Your task to perform on an android device: turn off sleep mode Image 0: 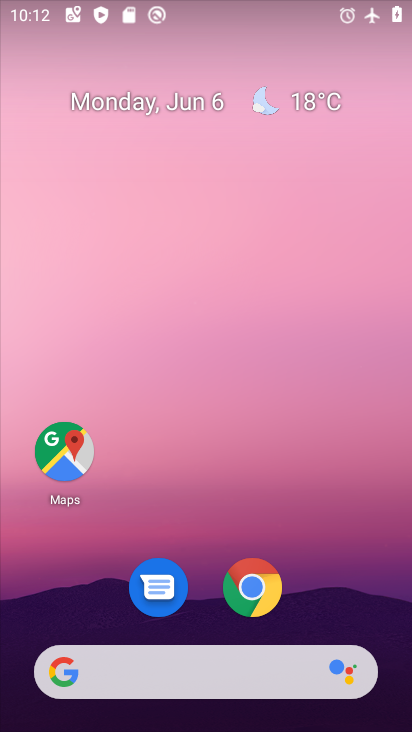
Step 0: drag from (333, 385) to (305, 67)
Your task to perform on an android device: turn off sleep mode Image 1: 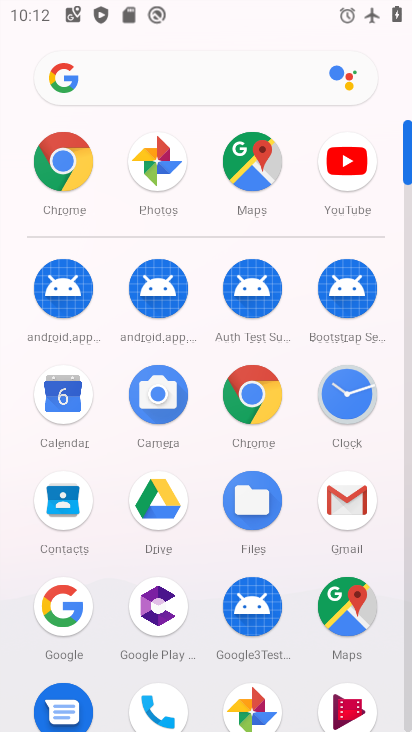
Step 1: drag from (292, 573) to (334, 163)
Your task to perform on an android device: turn off sleep mode Image 2: 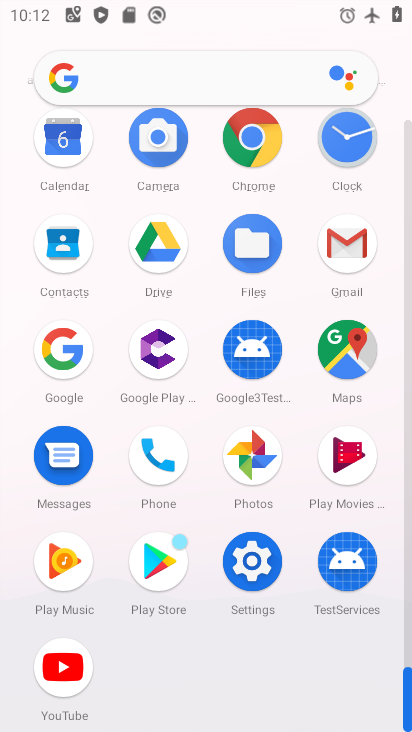
Step 2: click (243, 569)
Your task to perform on an android device: turn off sleep mode Image 3: 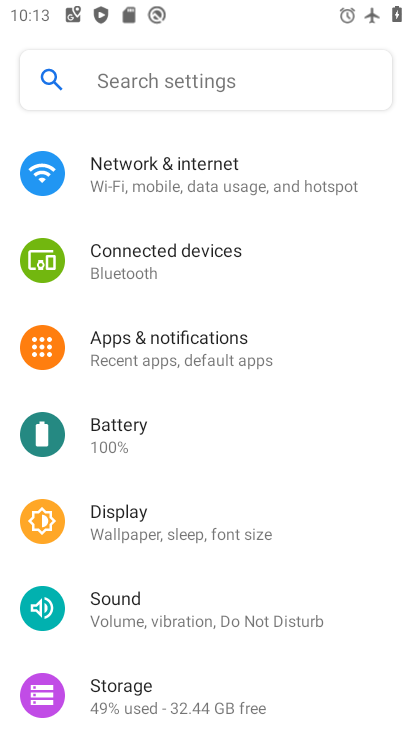
Step 3: click (139, 540)
Your task to perform on an android device: turn off sleep mode Image 4: 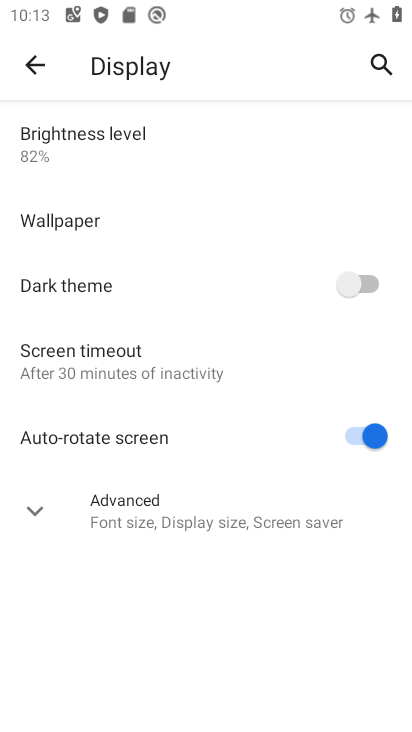
Step 4: click (151, 341)
Your task to perform on an android device: turn off sleep mode Image 5: 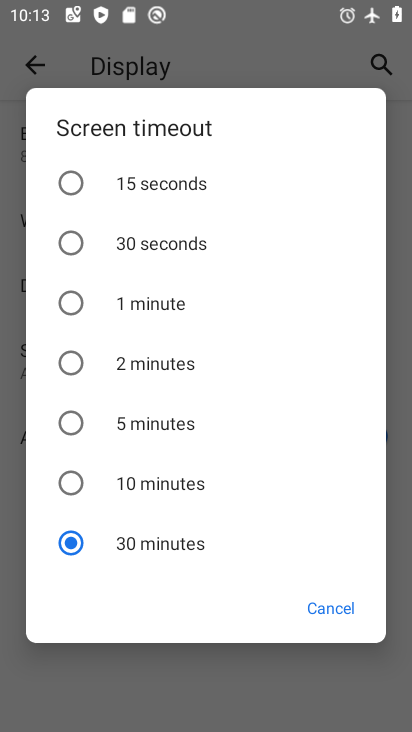
Step 5: task complete